Your task to perform on an android device: turn on location history Image 0: 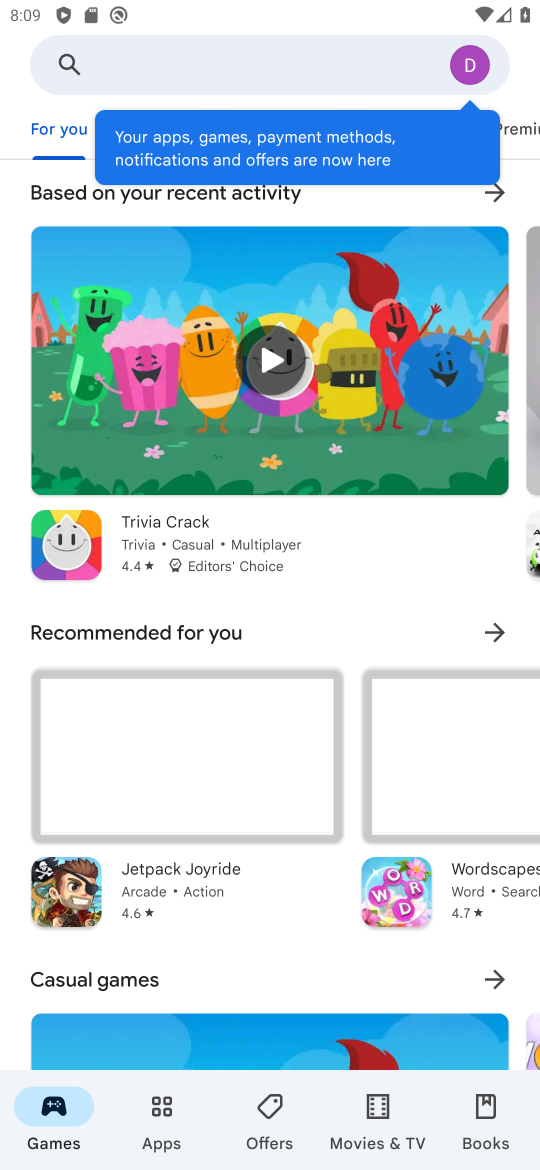
Step 0: press home button
Your task to perform on an android device: turn on location history Image 1: 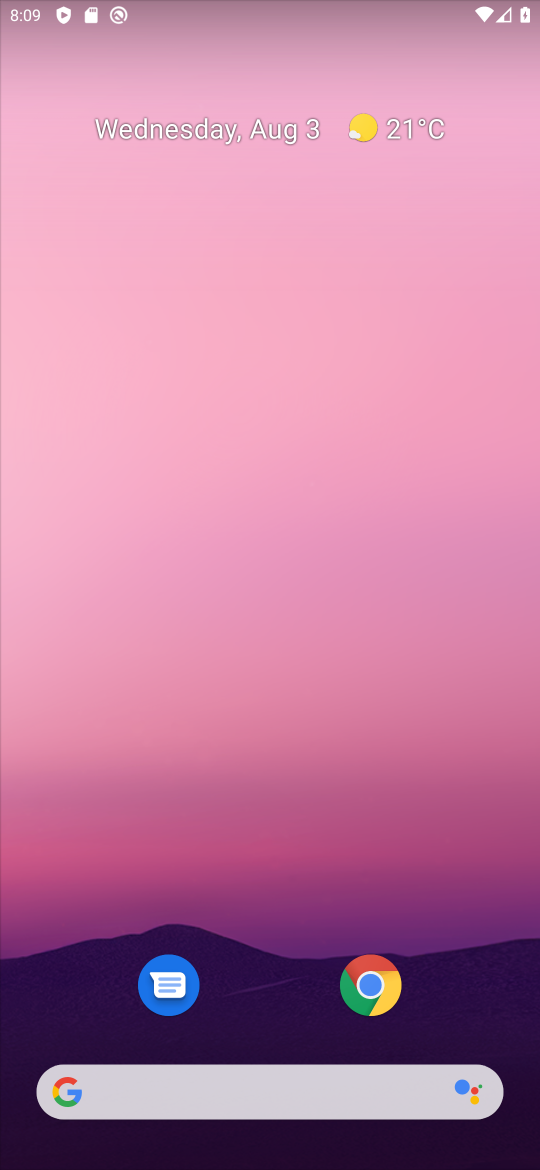
Step 1: drag from (219, 902) to (202, 389)
Your task to perform on an android device: turn on location history Image 2: 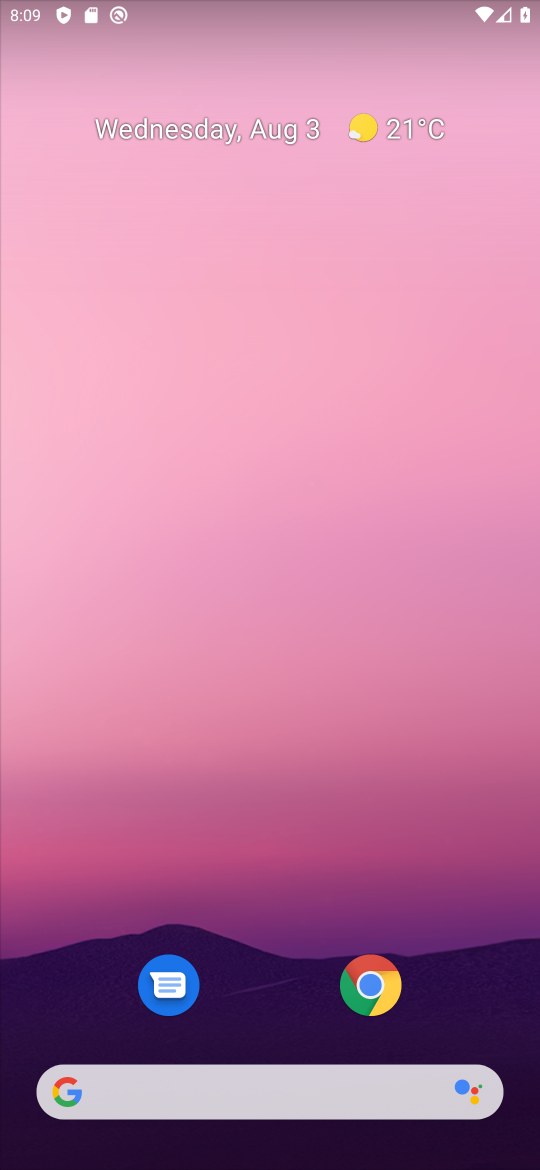
Step 2: drag from (224, 919) to (208, 42)
Your task to perform on an android device: turn on location history Image 3: 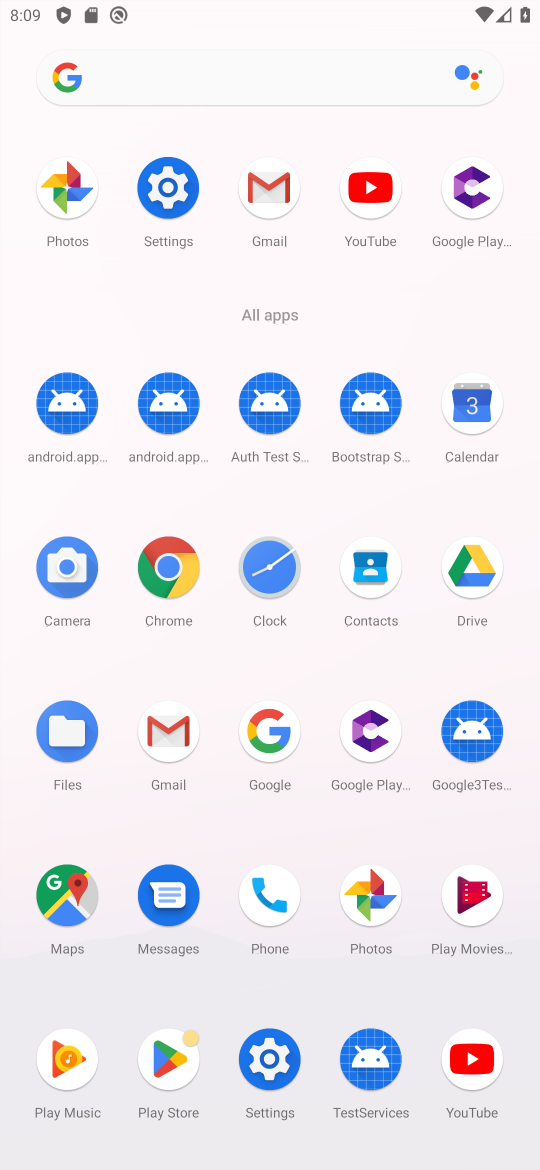
Step 3: click (177, 186)
Your task to perform on an android device: turn on location history Image 4: 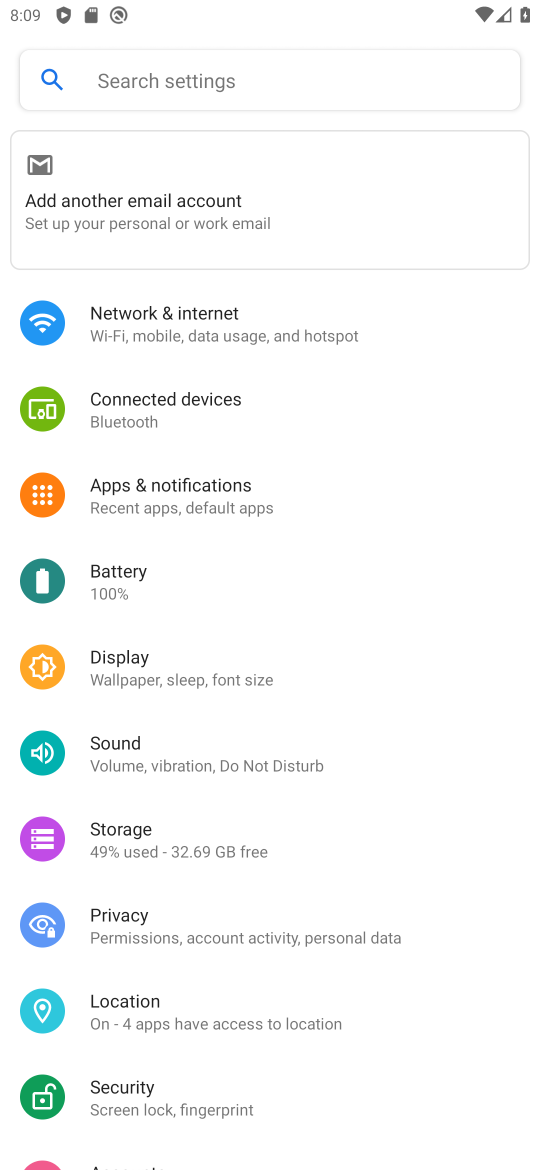
Step 4: click (185, 1019)
Your task to perform on an android device: turn on location history Image 5: 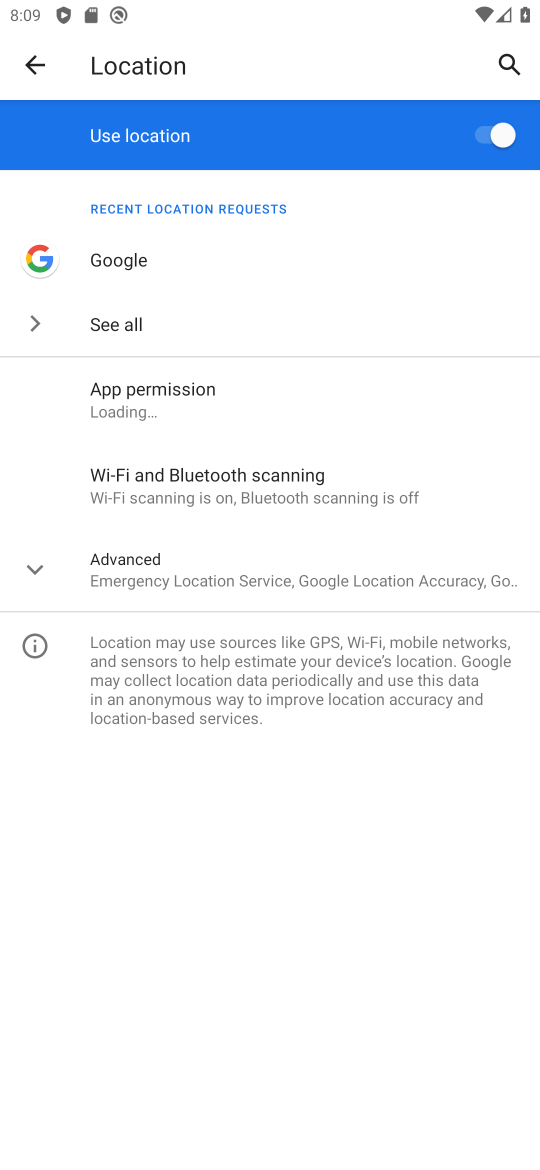
Step 5: click (158, 570)
Your task to perform on an android device: turn on location history Image 6: 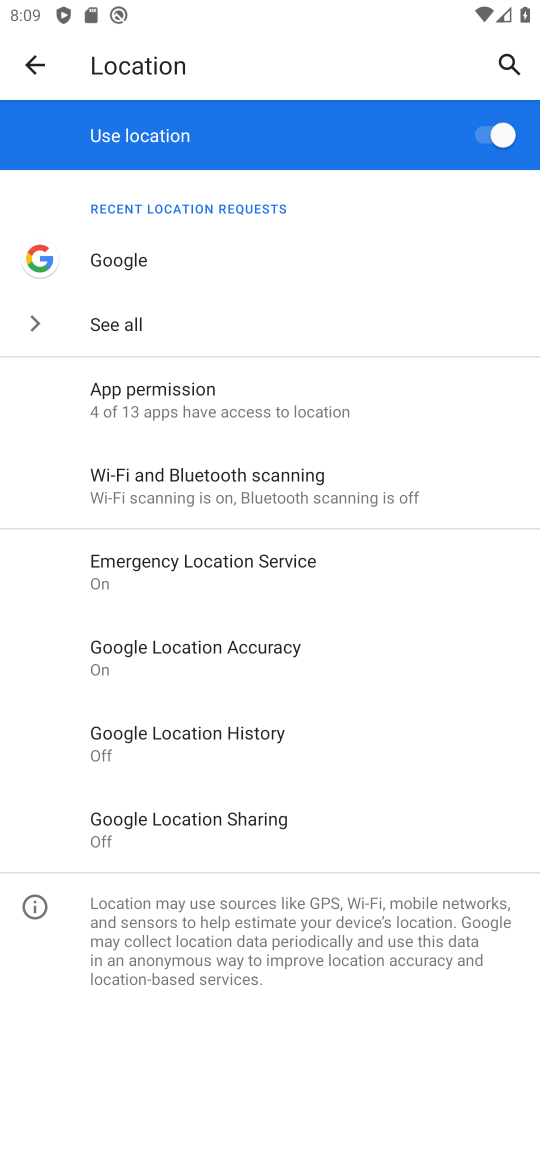
Step 6: click (249, 737)
Your task to perform on an android device: turn on location history Image 7: 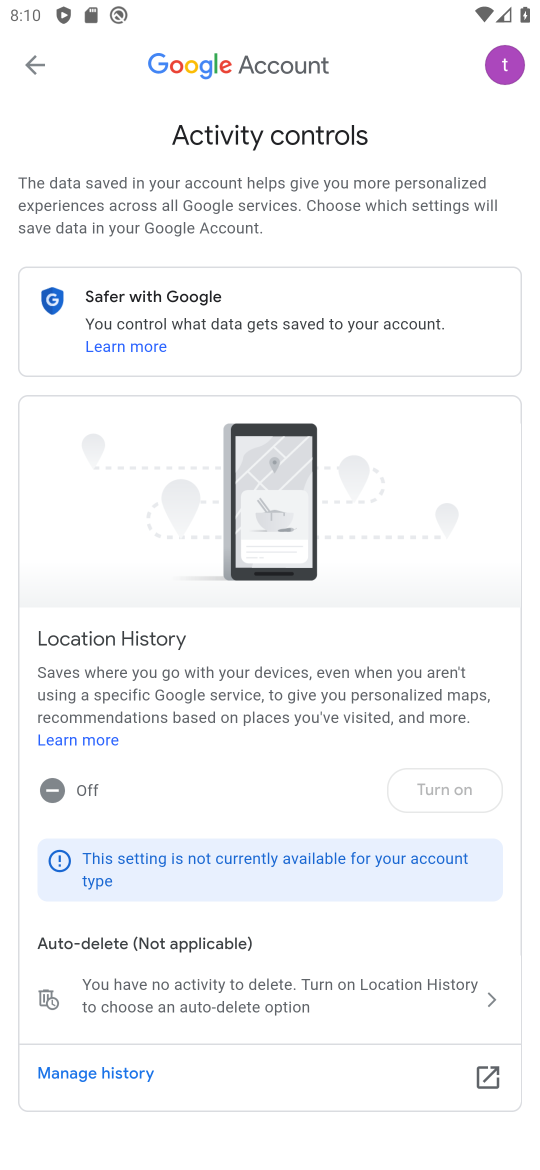
Step 7: click (406, 776)
Your task to perform on an android device: turn on location history Image 8: 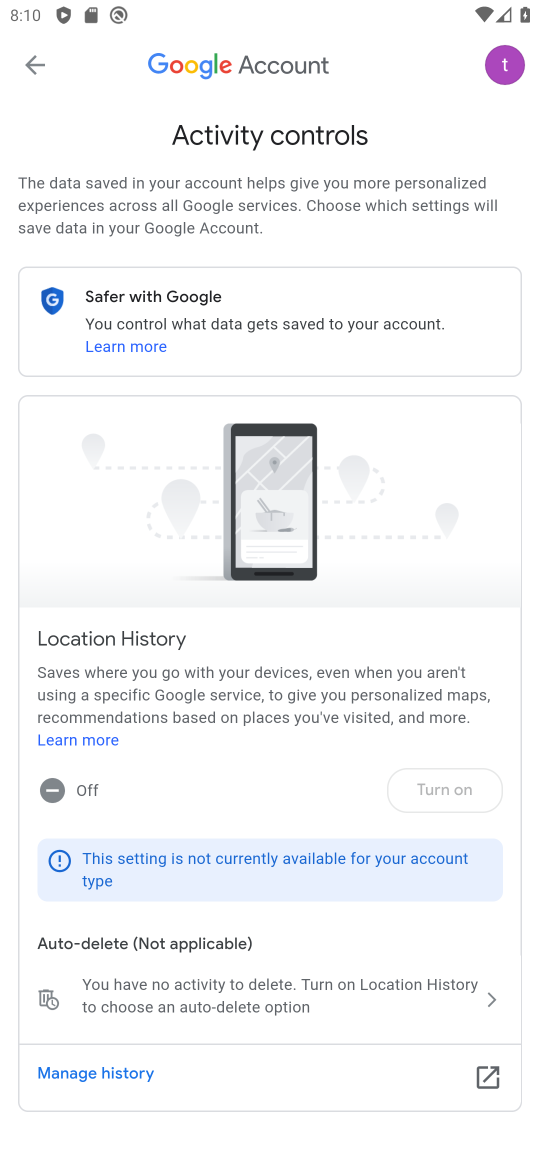
Step 8: drag from (372, 834) to (354, 507)
Your task to perform on an android device: turn on location history Image 9: 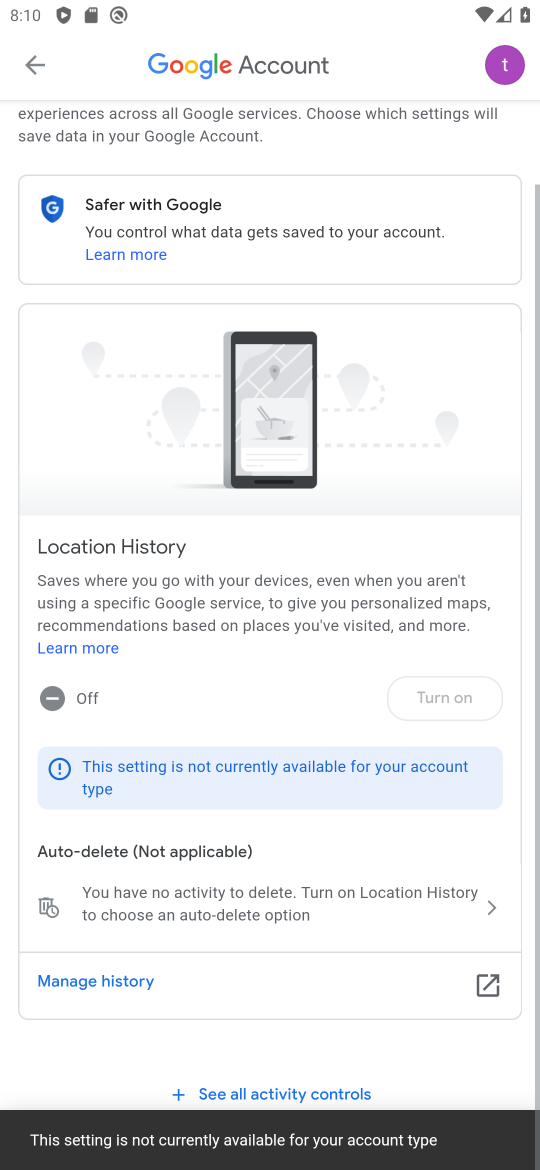
Step 9: click (436, 767)
Your task to perform on an android device: turn on location history Image 10: 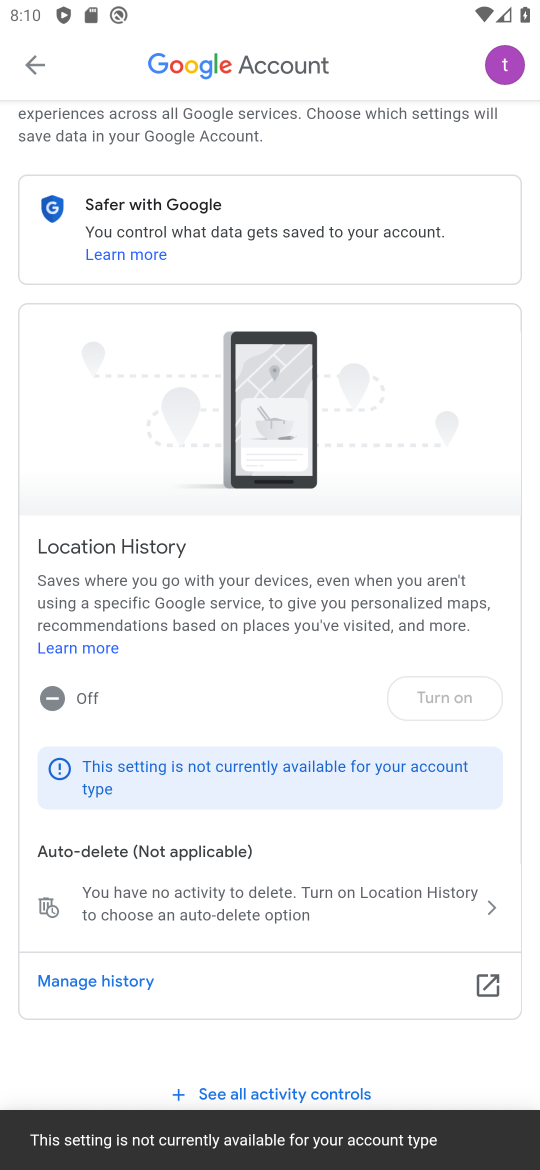
Step 10: click (436, 668)
Your task to perform on an android device: turn on location history Image 11: 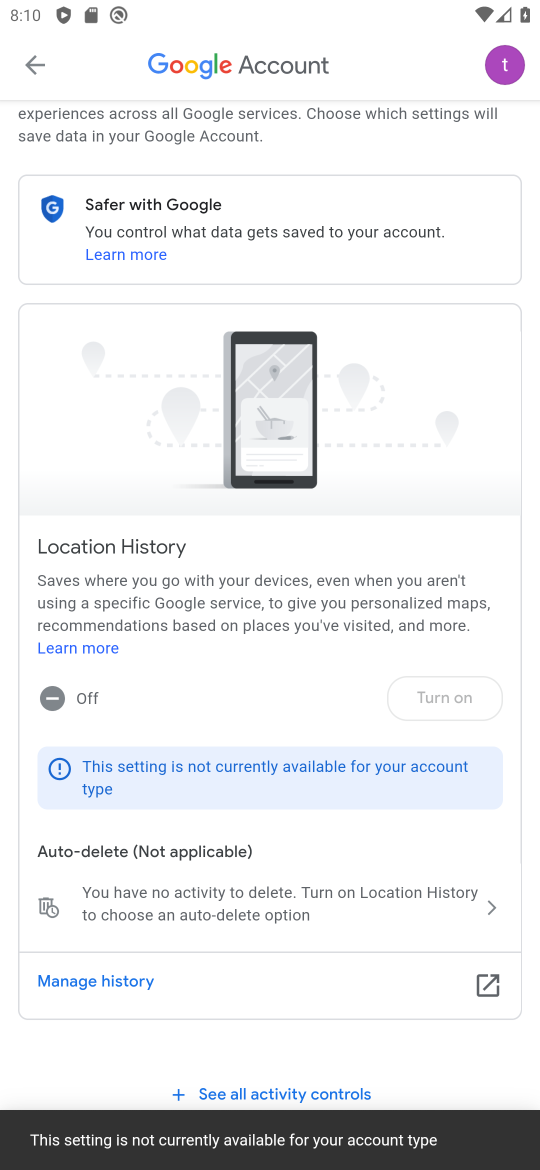
Step 11: click (424, 684)
Your task to perform on an android device: turn on location history Image 12: 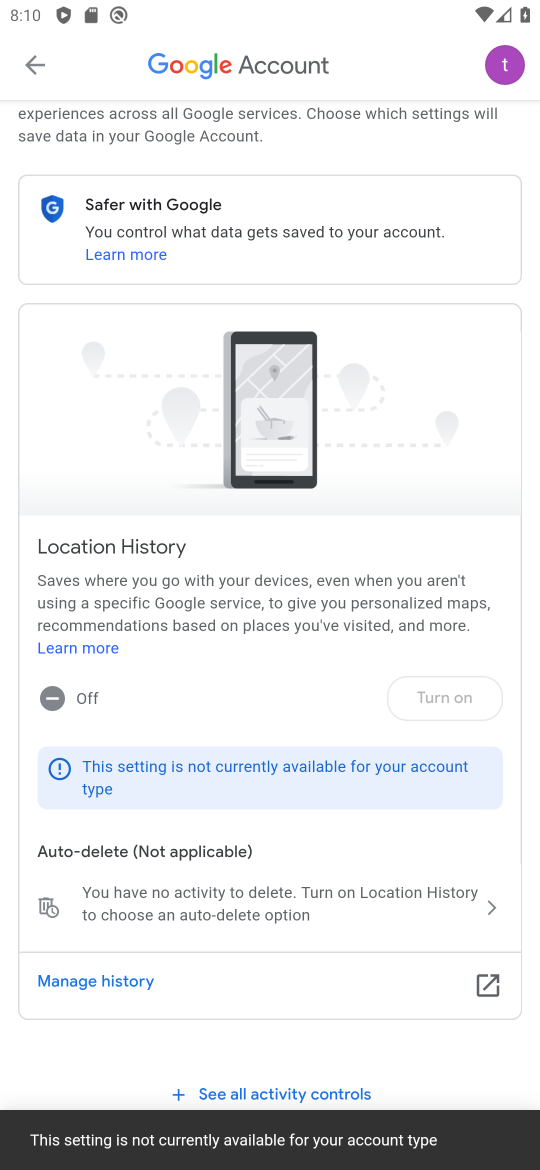
Step 12: task complete